Your task to perform on an android device: turn on javascript in the chrome app Image 0: 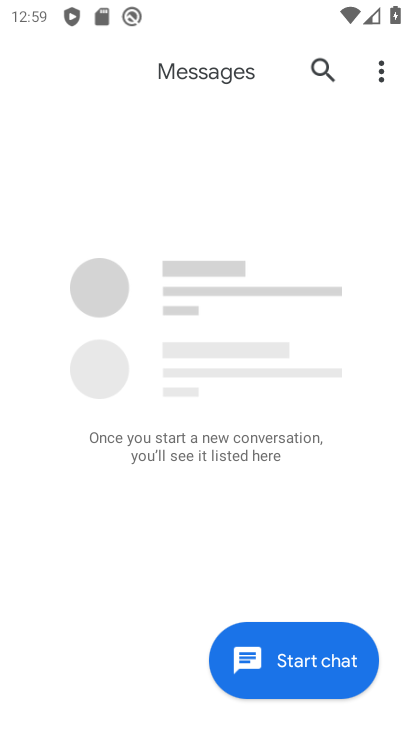
Step 0: press home button
Your task to perform on an android device: turn on javascript in the chrome app Image 1: 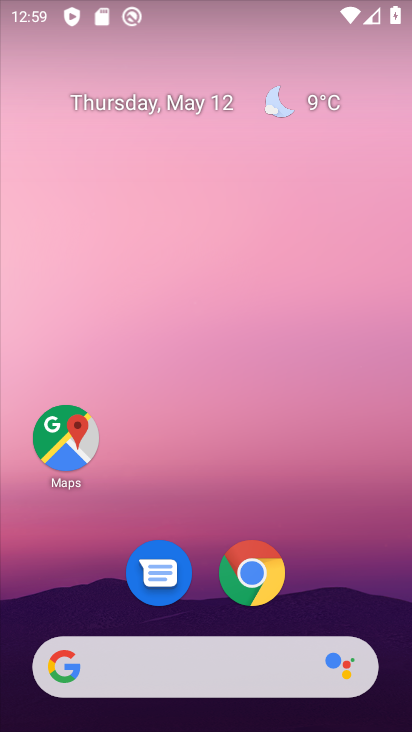
Step 1: click (250, 569)
Your task to perform on an android device: turn on javascript in the chrome app Image 2: 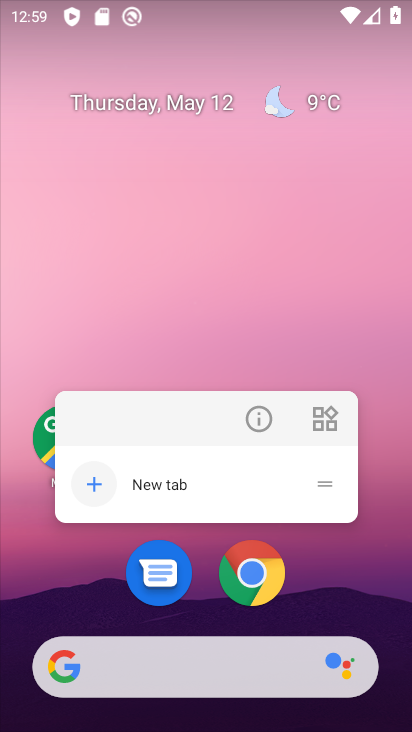
Step 2: click (252, 569)
Your task to perform on an android device: turn on javascript in the chrome app Image 3: 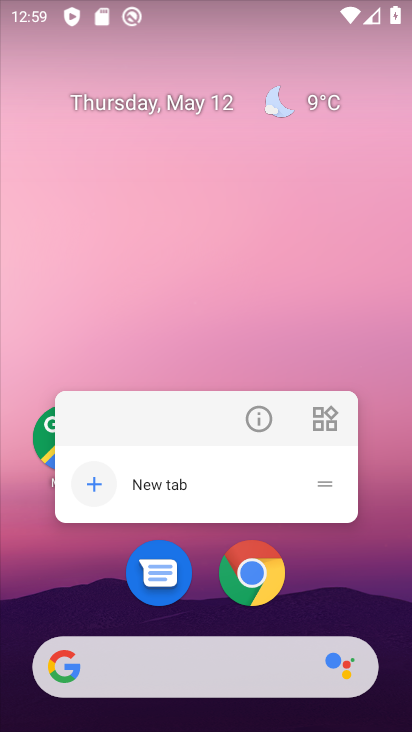
Step 3: click (253, 568)
Your task to perform on an android device: turn on javascript in the chrome app Image 4: 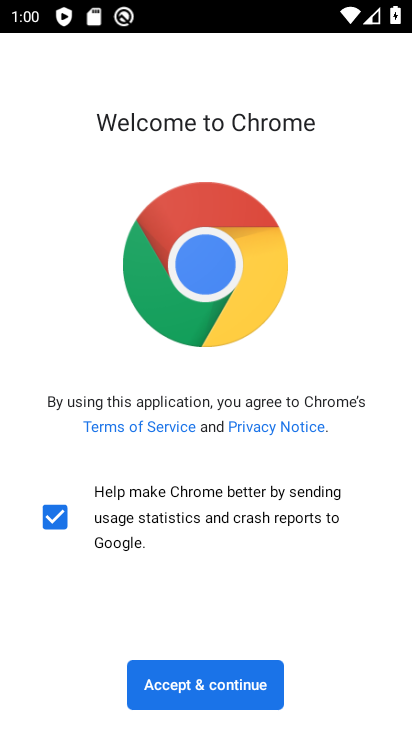
Step 4: click (223, 692)
Your task to perform on an android device: turn on javascript in the chrome app Image 5: 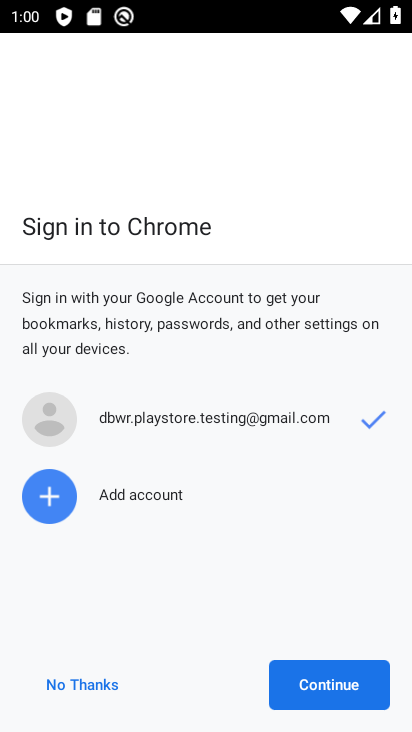
Step 5: click (337, 694)
Your task to perform on an android device: turn on javascript in the chrome app Image 6: 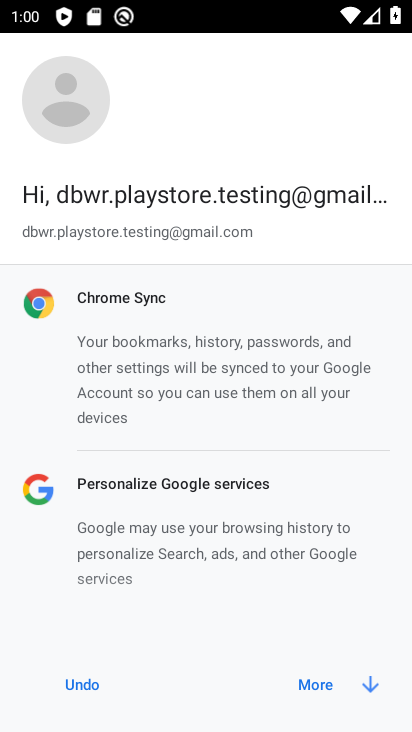
Step 6: click (344, 686)
Your task to perform on an android device: turn on javascript in the chrome app Image 7: 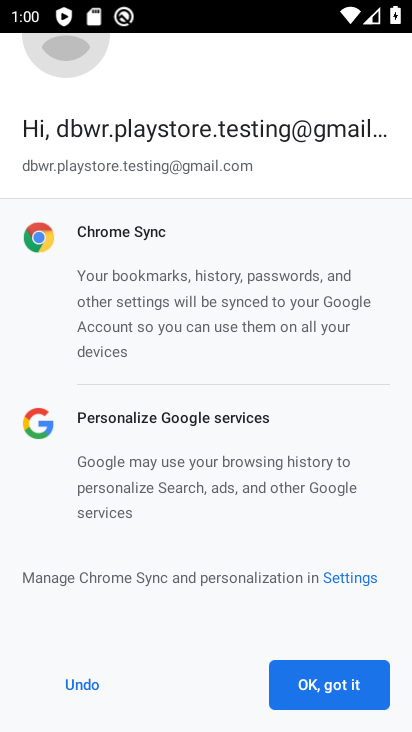
Step 7: click (343, 687)
Your task to perform on an android device: turn on javascript in the chrome app Image 8: 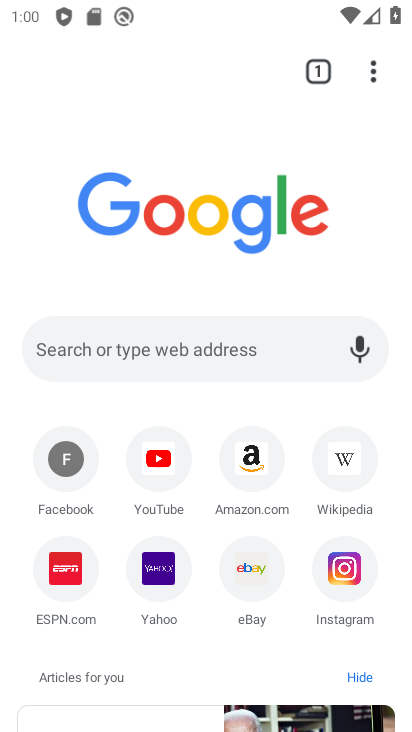
Step 8: click (364, 93)
Your task to perform on an android device: turn on javascript in the chrome app Image 9: 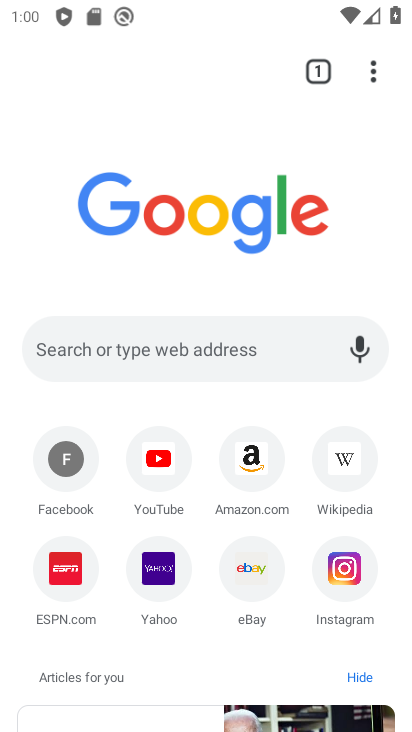
Step 9: click (378, 47)
Your task to perform on an android device: turn on javascript in the chrome app Image 10: 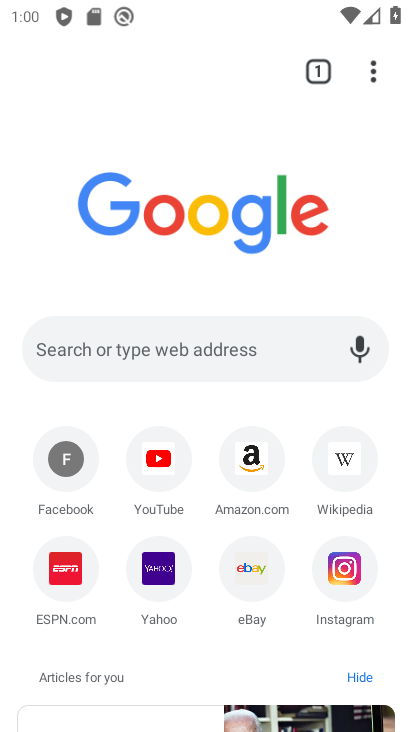
Step 10: click (373, 66)
Your task to perform on an android device: turn on javascript in the chrome app Image 11: 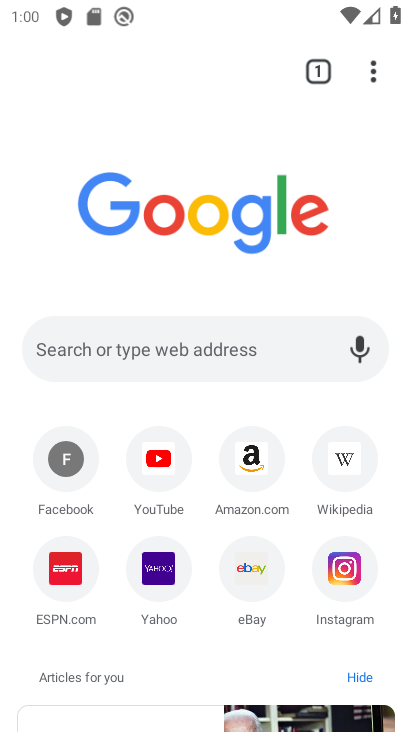
Step 11: click (374, 74)
Your task to perform on an android device: turn on javascript in the chrome app Image 12: 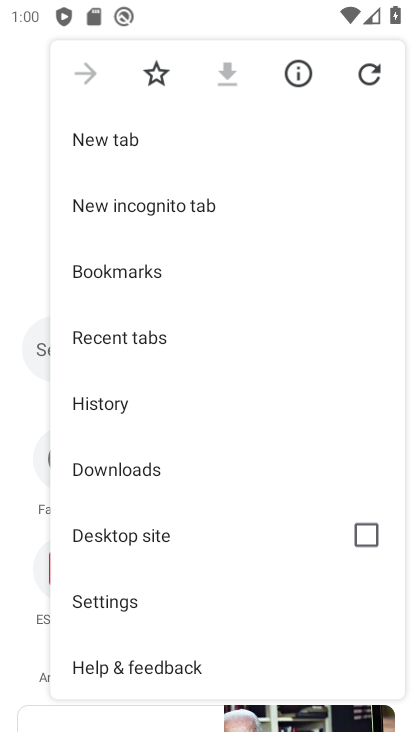
Step 12: click (169, 593)
Your task to perform on an android device: turn on javascript in the chrome app Image 13: 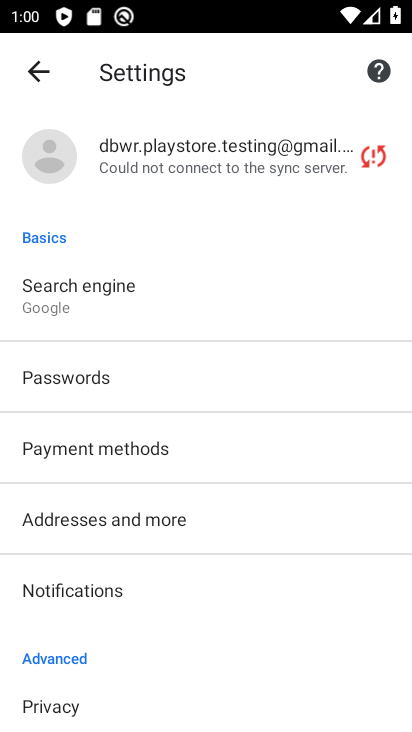
Step 13: drag from (117, 598) to (199, 10)
Your task to perform on an android device: turn on javascript in the chrome app Image 14: 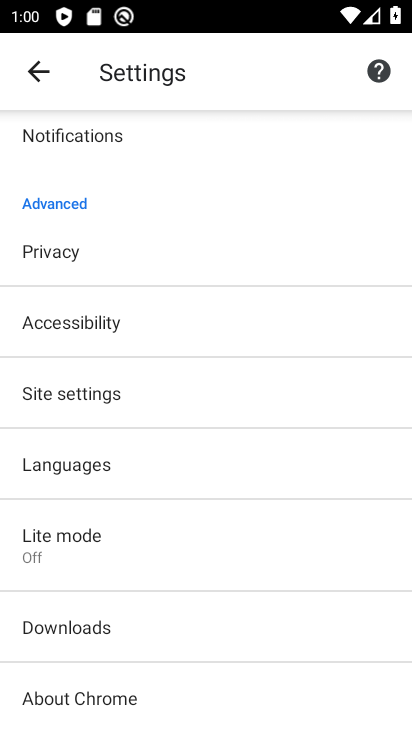
Step 14: click (142, 402)
Your task to perform on an android device: turn on javascript in the chrome app Image 15: 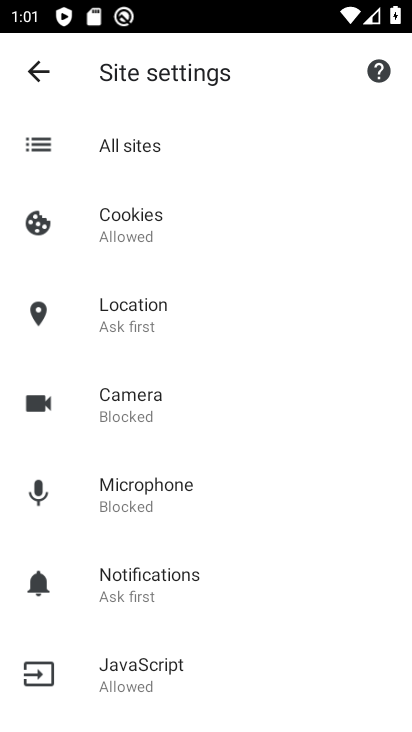
Step 15: click (242, 686)
Your task to perform on an android device: turn on javascript in the chrome app Image 16: 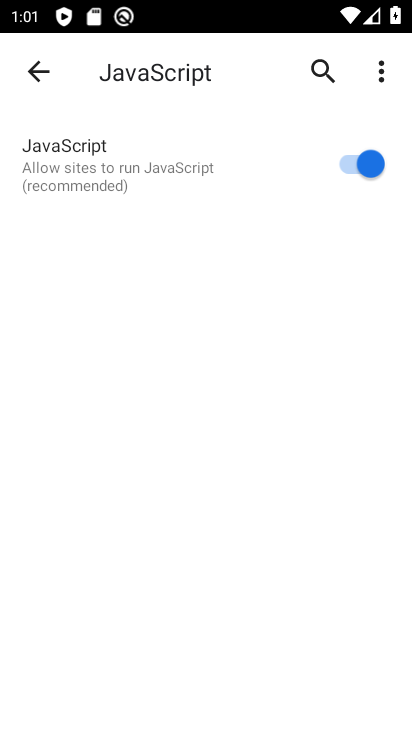
Step 16: task complete